Your task to perform on an android device: Open Google Maps and go to "Timeline" Image 0: 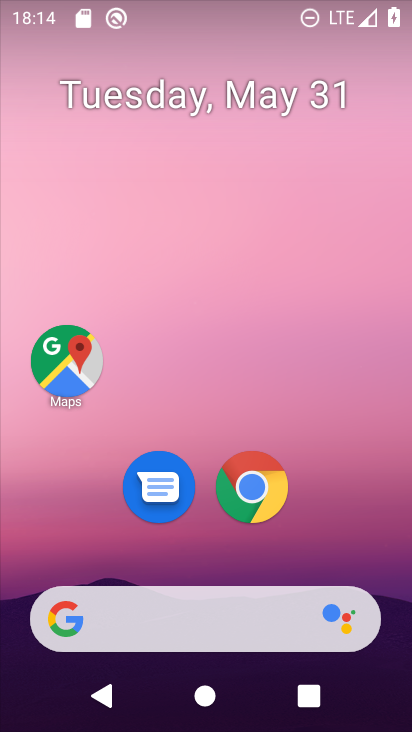
Step 0: click (51, 384)
Your task to perform on an android device: Open Google Maps and go to "Timeline" Image 1: 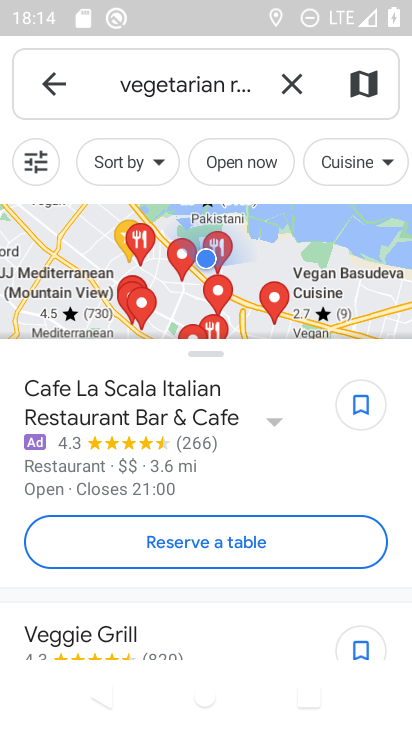
Step 1: click (54, 77)
Your task to perform on an android device: Open Google Maps and go to "Timeline" Image 2: 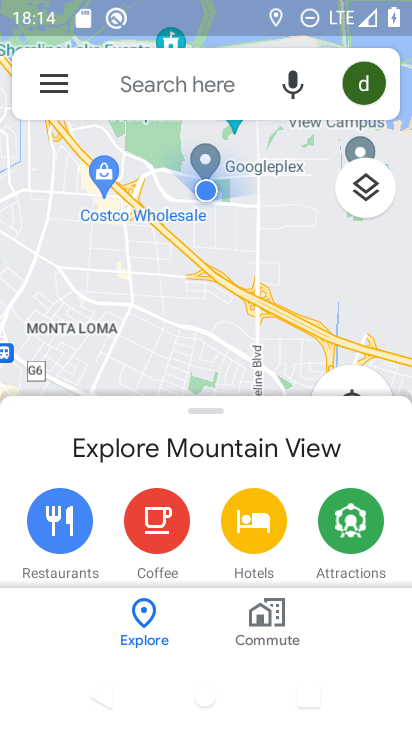
Step 2: click (44, 76)
Your task to perform on an android device: Open Google Maps and go to "Timeline" Image 3: 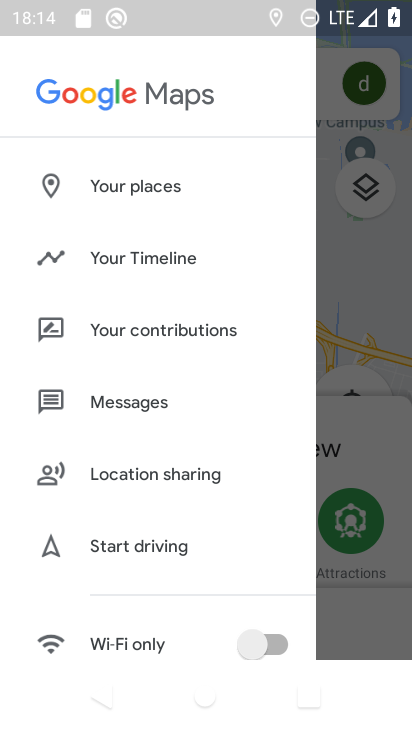
Step 3: click (128, 251)
Your task to perform on an android device: Open Google Maps and go to "Timeline" Image 4: 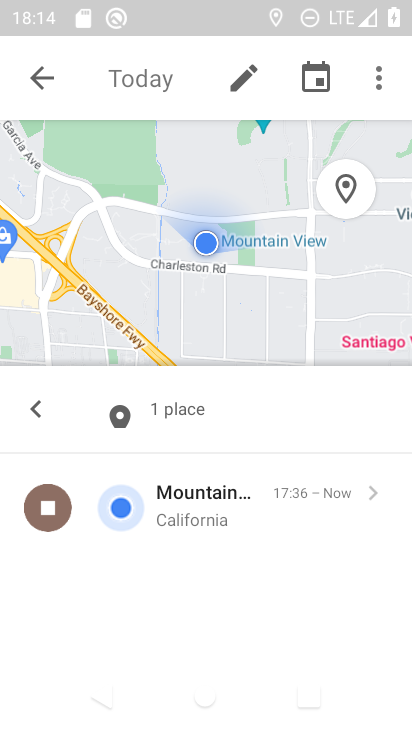
Step 4: task complete